Your task to perform on an android device: add a contact in the contacts app Image 0: 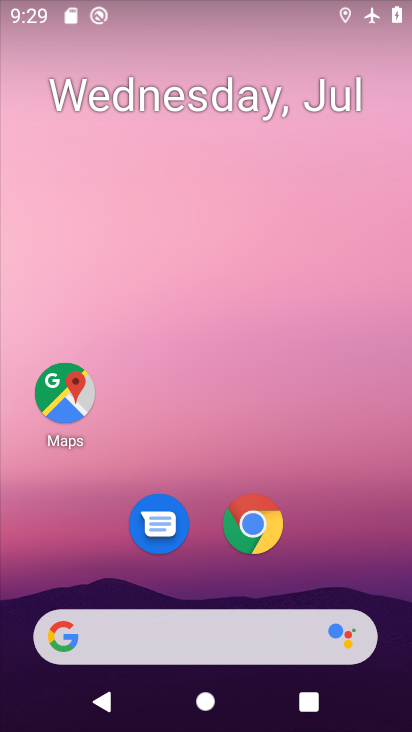
Step 0: drag from (315, 535) to (334, 77)
Your task to perform on an android device: add a contact in the contacts app Image 1: 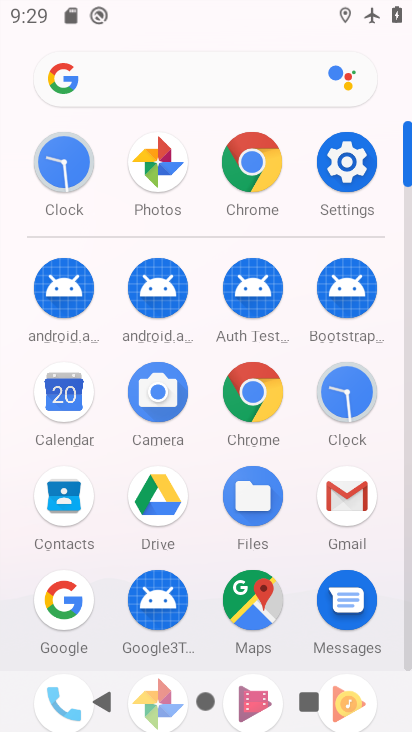
Step 1: click (69, 495)
Your task to perform on an android device: add a contact in the contacts app Image 2: 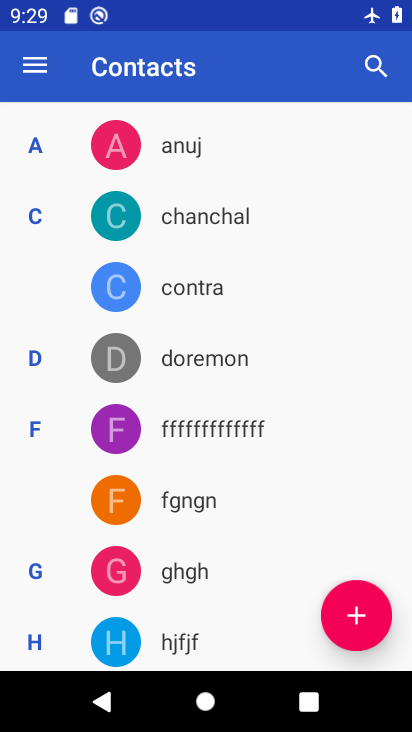
Step 2: click (358, 623)
Your task to perform on an android device: add a contact in the contacts app Image 3: 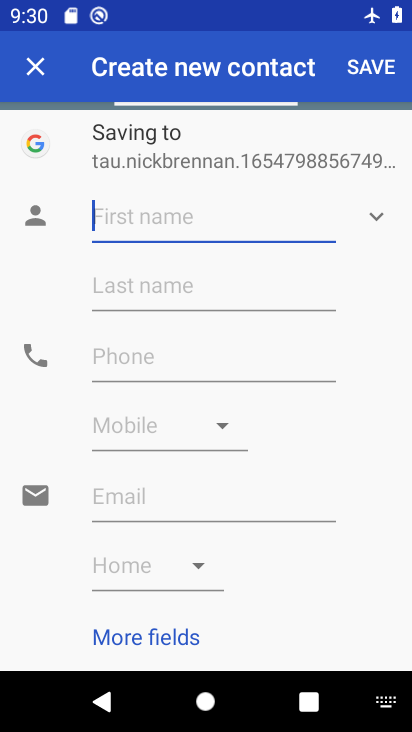
Step 3: type "Ram"
Your task to perform on an android device: add a contact in the contacts app Image 4: 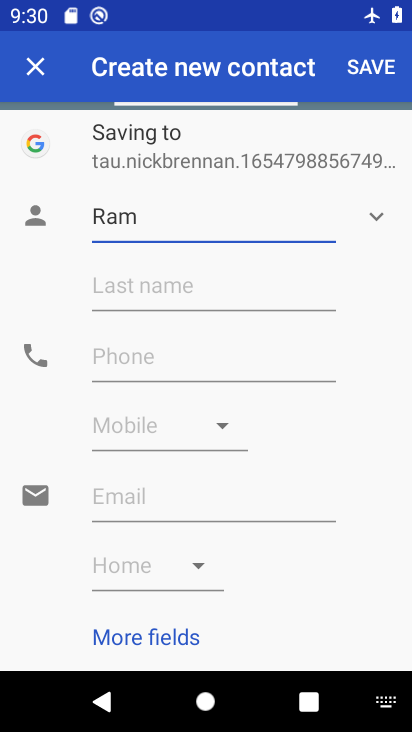
Step 4: click (250, 369)
Your task to perform on an android device: add a contact in the contacts app Image 5: 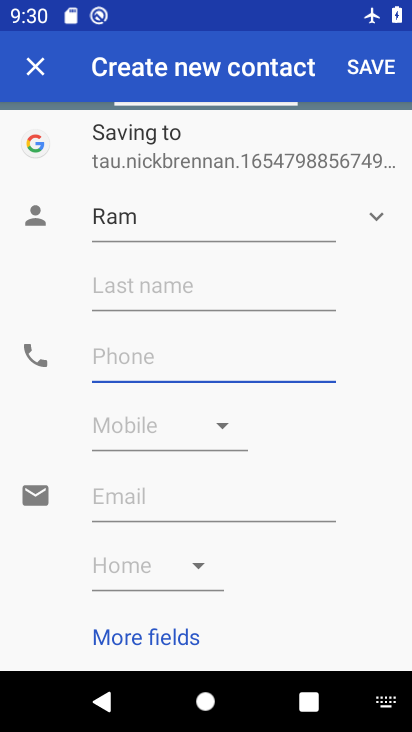
Step 5: type "9100001"
Your task to perform on an android device: add a contact in the contacts app Image 6: 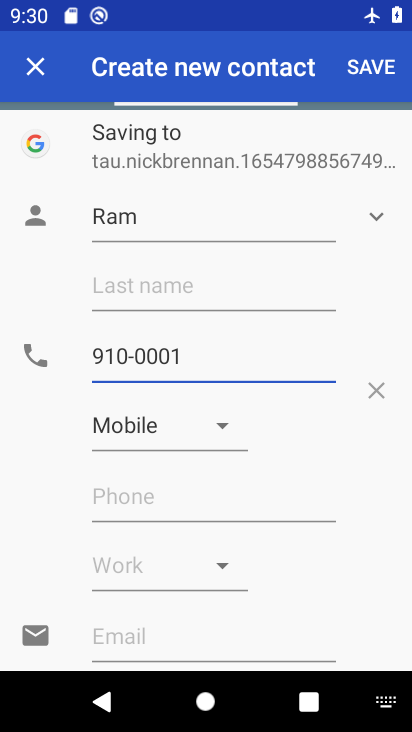
Step 6: click (375, 68)
Your task to perform on an android device: add a contact in the contacts app Image 7: 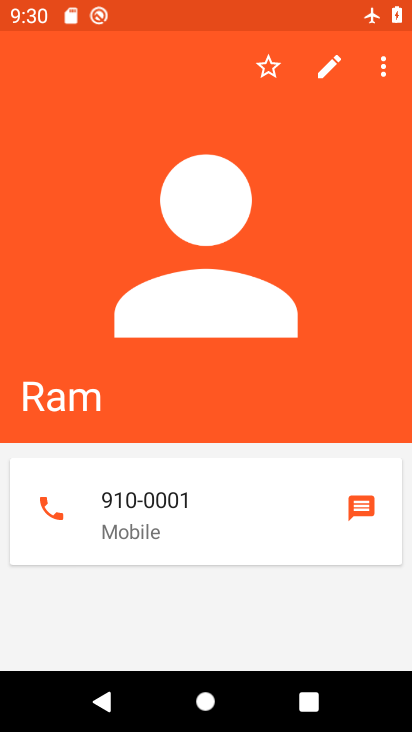
Step 7: task complete